Your task to perform on an android device: Search for seafood restaurants on Google Maps Image 0: 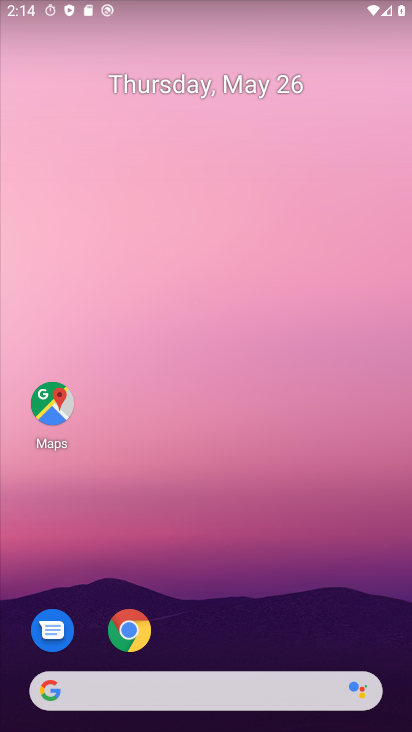
Step 0: click (53, 420)
Your task to perform on an android device: Search for seafood restaurants on Google Maps Image 1: 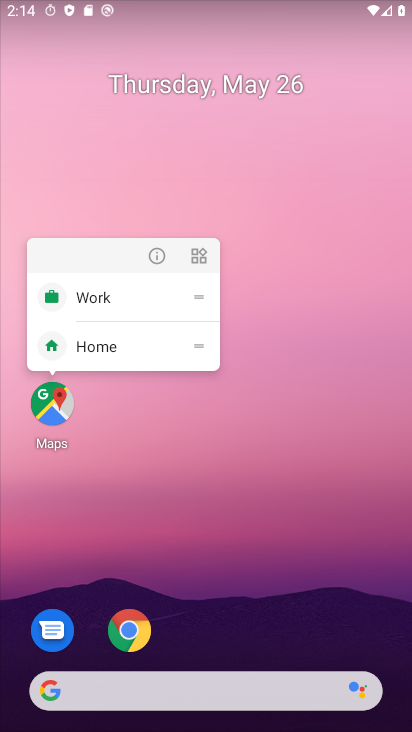
Step 1: click (53, 418)
Your task to perform on an android device: Search for seafood restaurants on Google Maps Image 2: 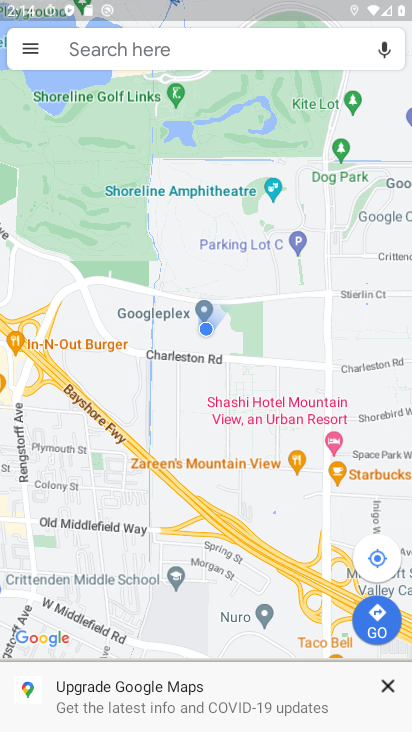
Step 2: click (239, 35)
Your task to perform on an android device: Search for seafood restaurants on Google Maps Image 3: 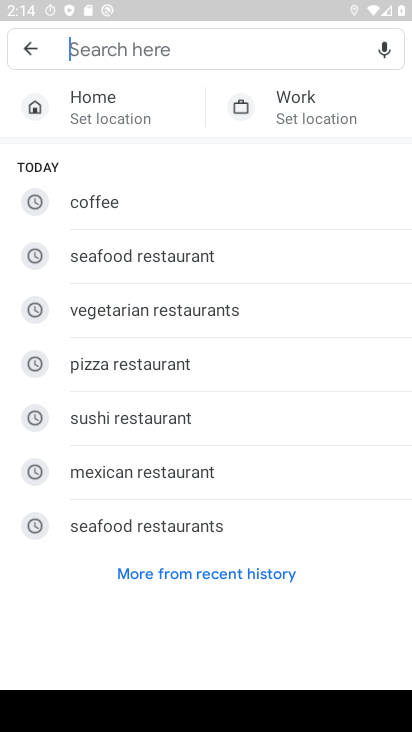
Step 3: click (102, 528)
Your task to perform on an android device: Search for seafood restaurants on Google Maps Image 4: 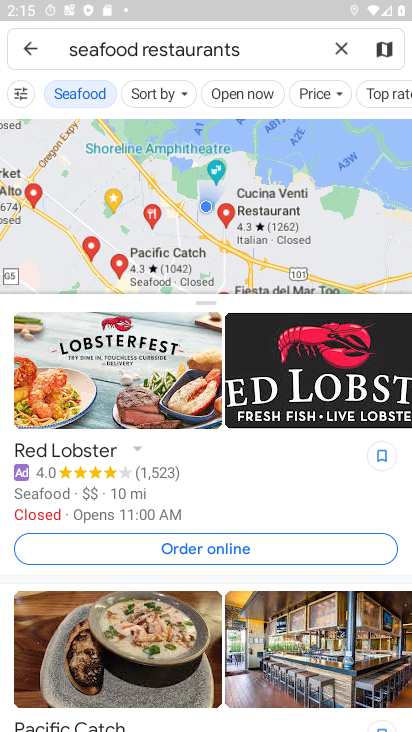
Step 4: task complete